Your task to perform on an android device: toggle notification dots Image 0: 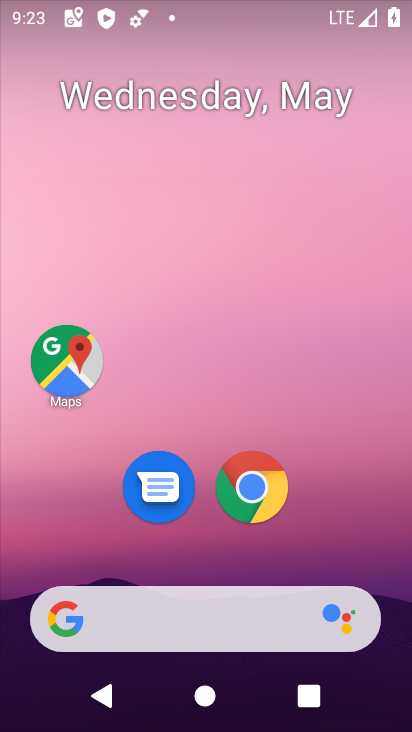
Step 0: drag from (354, 511) to (295, 154)
Your task to perform on an android device: toggle notification dots Image 1: 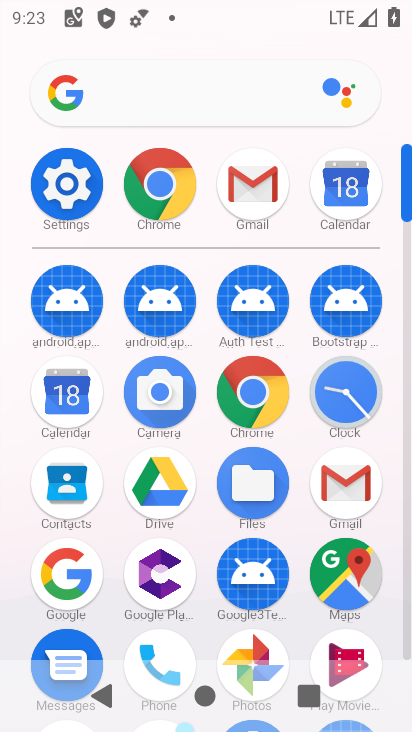
Step 1: click (68, 181)
Your task to perform on an android device: toggle notification dots Image 2: 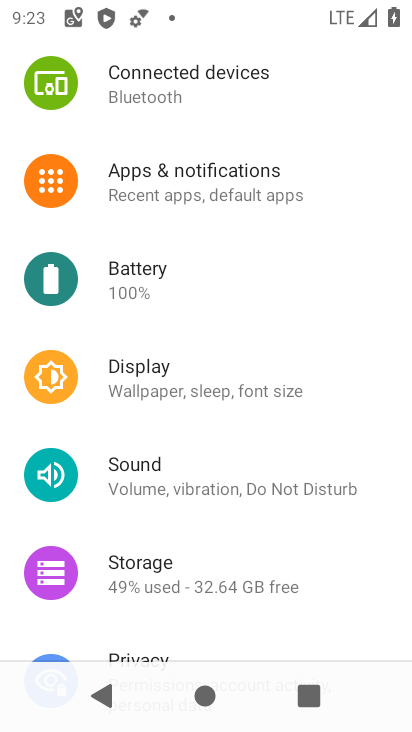
Step 2: click (194, 170)
Your task to perform on an android device: toggle notification dots Image 3: 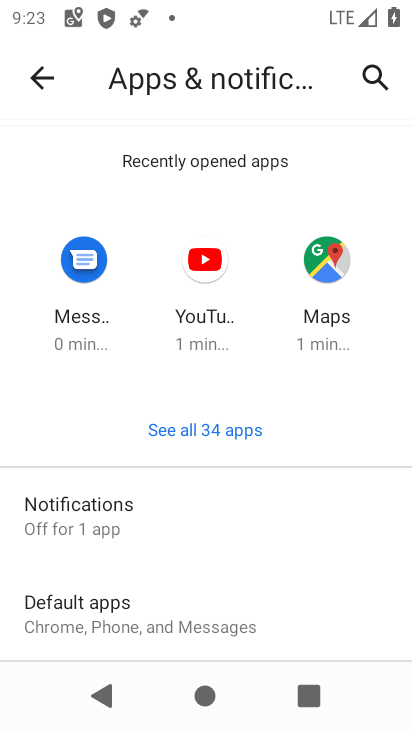
Step 3: drag from (185, 522) to (146, 298)
Your task to perform on an android device: toggle notification dots Image 4: 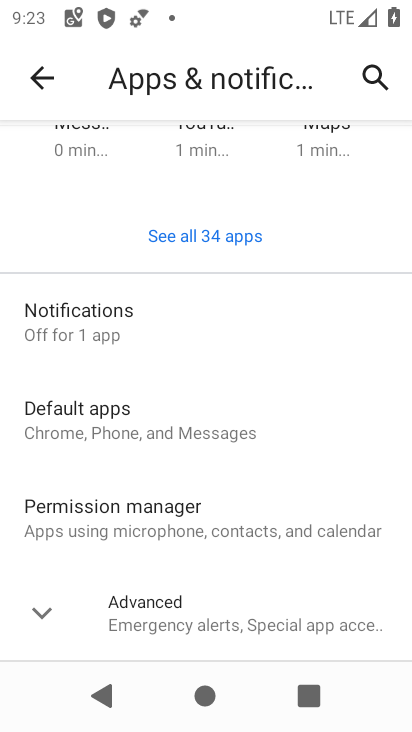
Step 4: click (87, 306)
Your task to perform on an android device: toggle notification dots Image 5: 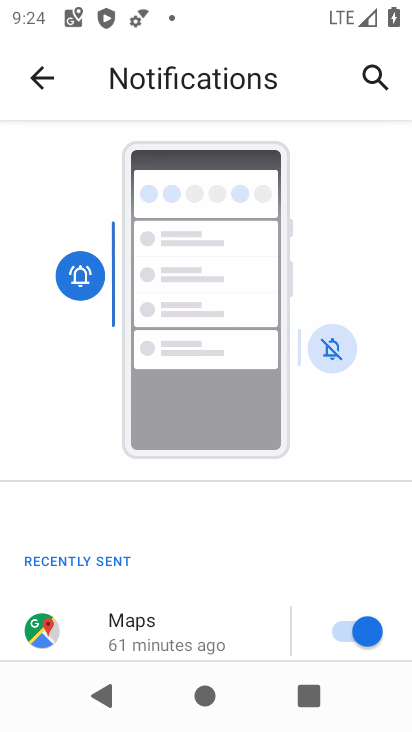
Step 5: drag from (263, 589) to (185, 265)
Your task to perform on an android device: toggle notification dots Image 6: 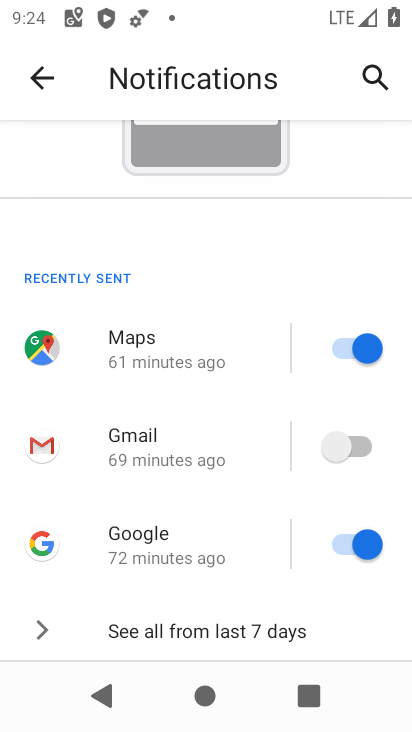
Step 6: drag from (243, 426) to (183, 178)
Your task to perform on an android device: toggle notification dots Image 7: 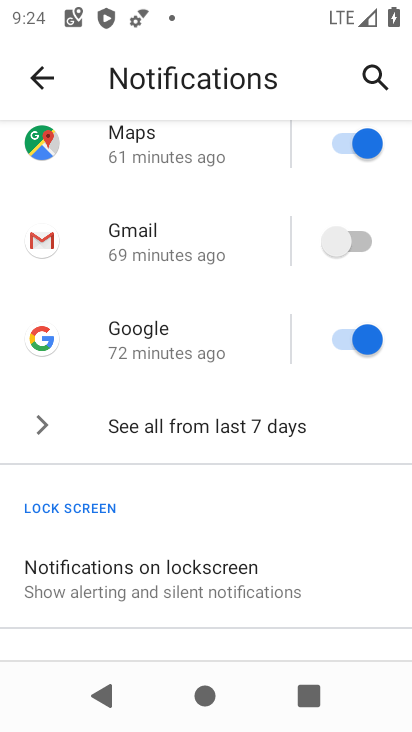
Step 7: drag from (232, 525) to (183, 274)
Your task to perform on an android device: toggle notification dots Image 8: 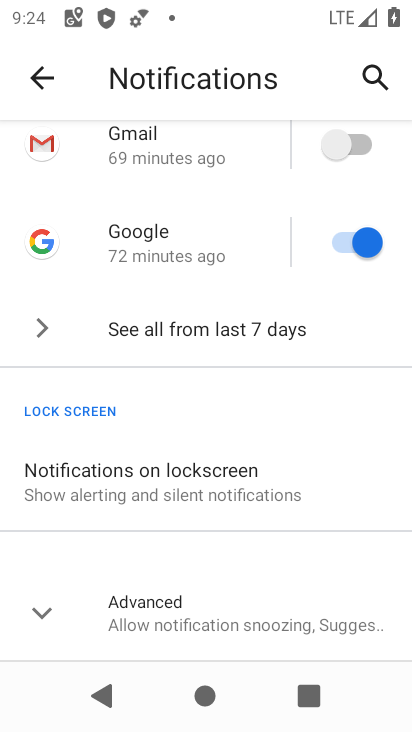
Step 8: click (47, 611)
Your task to perform on an android device: toggle notification dots Image 9: 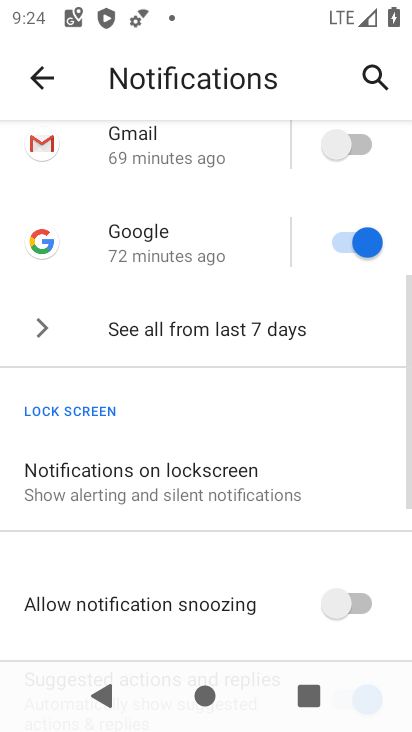
Step 9: drag from (214, 569) to (179, 316)
Your task to perform on an android device: toggle notification dots Image 10: 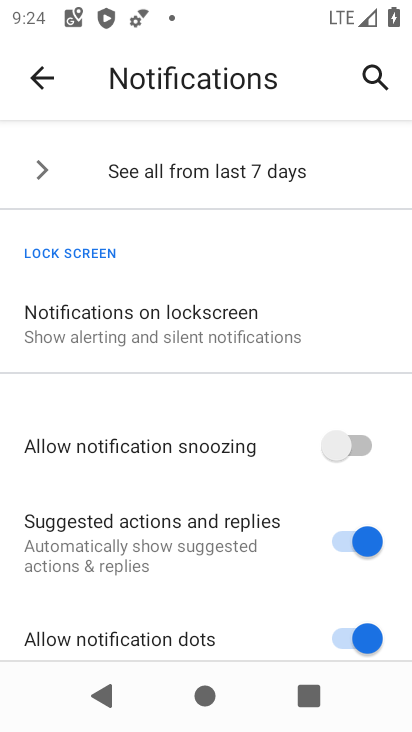
Step 10: click (365, 628)
Your task to perform on an android device: toggle notification dots Image 11: 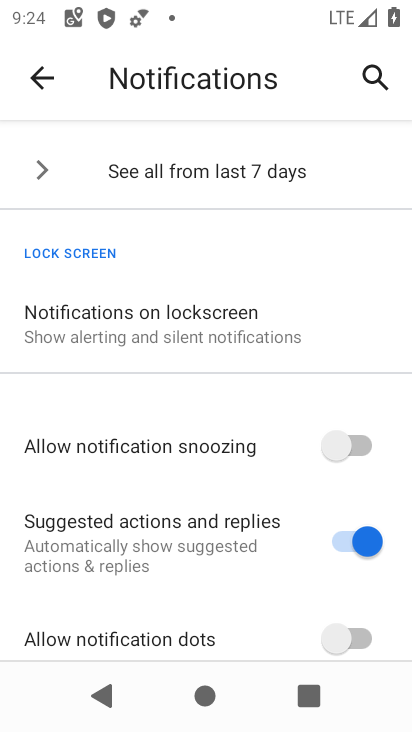
Step 11: task complete